Your task to perform on an android device: Toggle the flashlight Image 0: 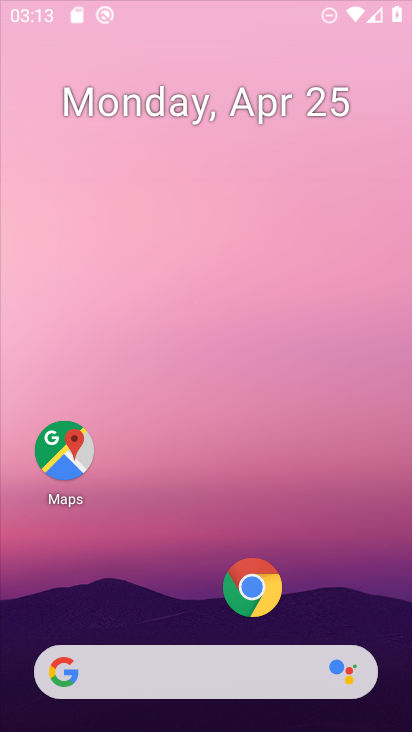
Step 0: click (207, 58)
Your task to perform on an android device: Toggle the flashlight Image 1: 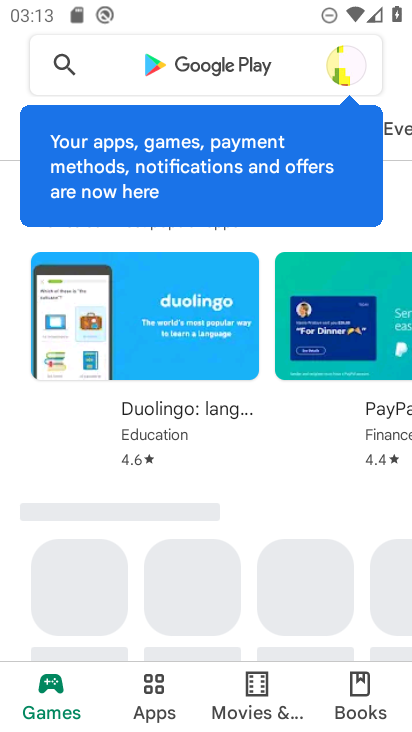
Step 1: press home button
Your task to perform on an android device: Toggle the flashlight Image 2: 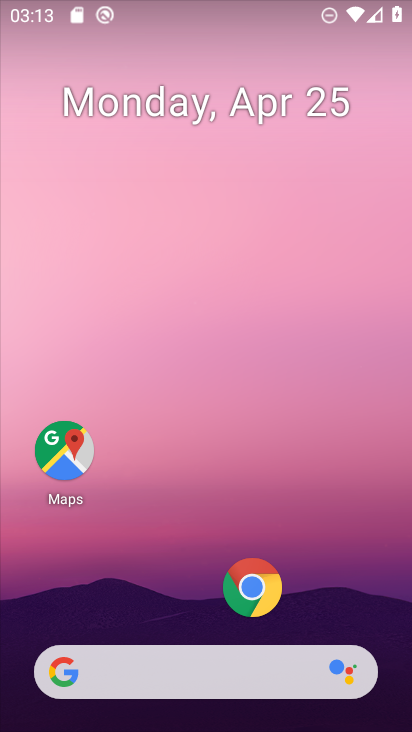
Step 2: drag from (196, 614) to (254, 57)
Your task to perform on an android device: Toggle the flashlight Image 3: 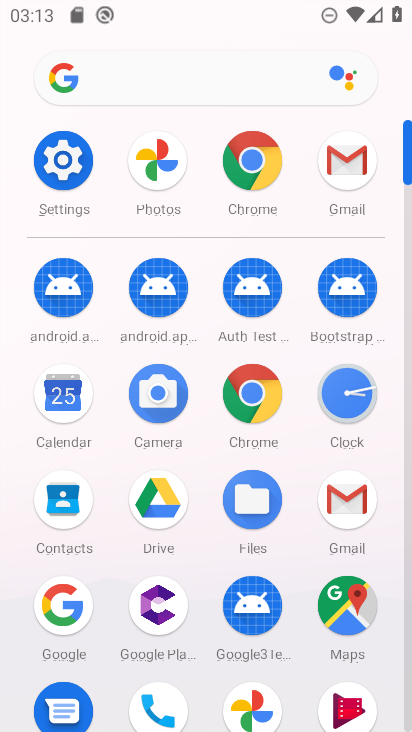
Step 3: click (61, 153)
Your task to perform on an android device: Toggle the flashlight Image 4: 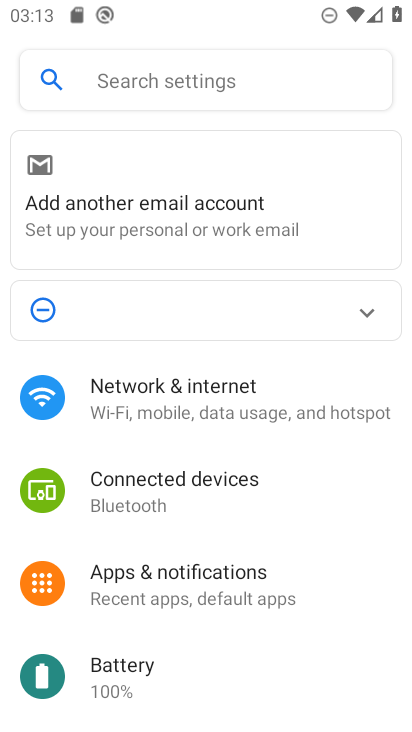
Step 4: click (168, 75)
Your task to perform on an android device: Toggle the flashlight Image 5: 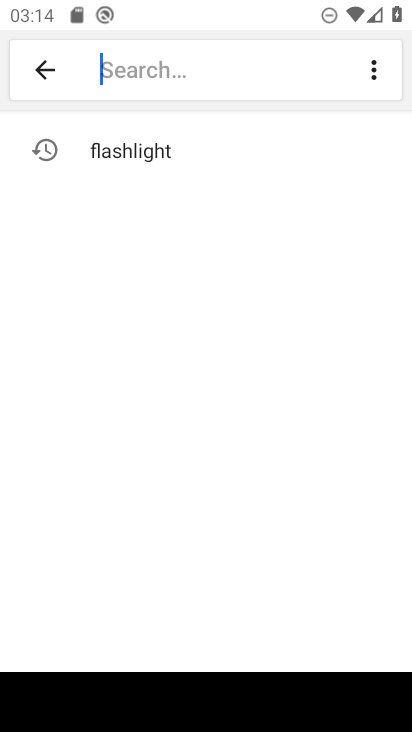
Step 5: type "flashlight"
Your task to perform on an android device: Toggle the flashlight Image 6: 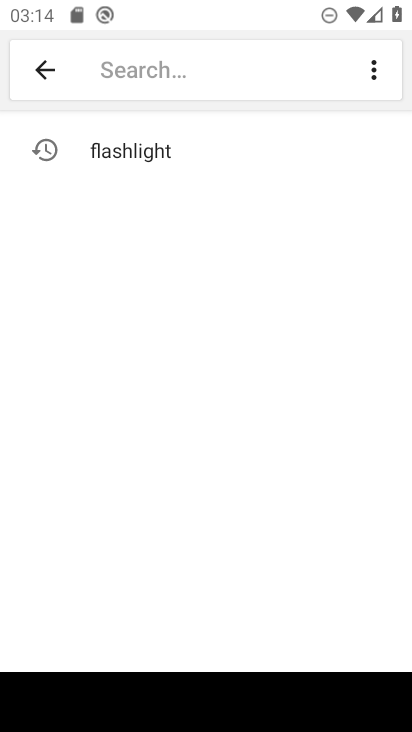
Step 6: click (161, 160)
Your task to perform on an android device: Toggle the flashlight Image 7: 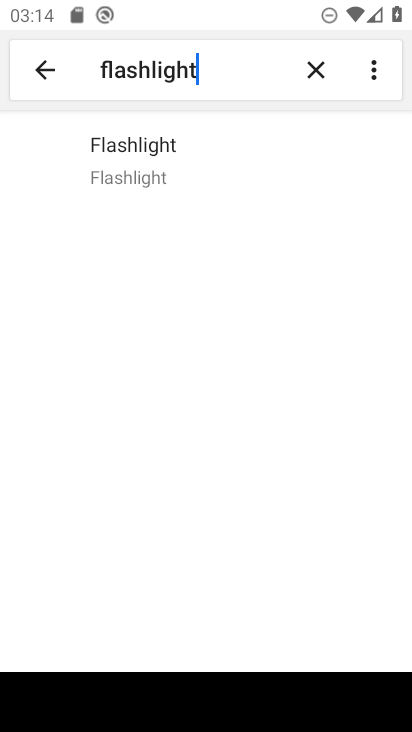
Step 7: click (182, 165)
Your task to perform on an android device: Toggle the flashlight Image 8: 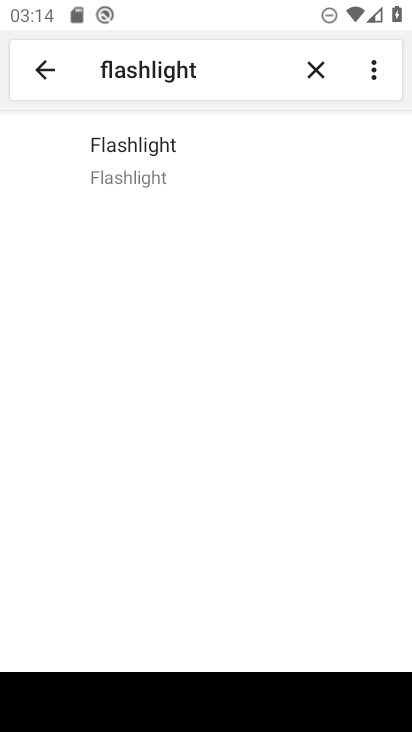
Step 8: task complete